Your task to perform on an android device: turn on showing notifications on the lock screen Image 0: 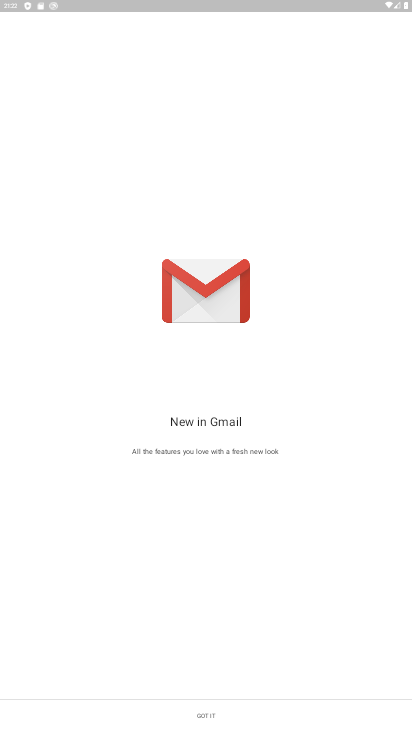
Step 0: press home button
Your task to perform on an android device: turn on showing notifications on the lock screen Image 1: 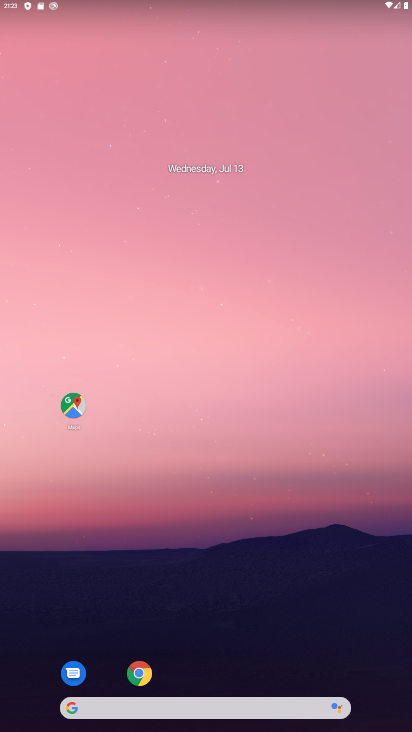
Step 1: drag from (211, 682) to (214, 204)
Your task to perform on an android device: turn on showing notifications on the lock screen Image 2: 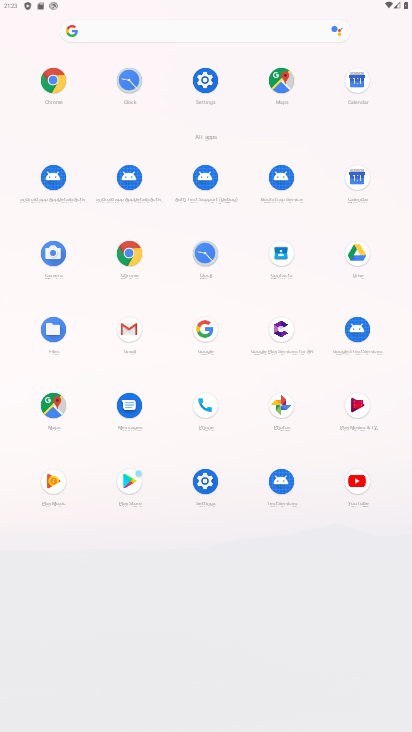
Step 2: click (209, 77)
Your task to perform on an android device: turn on showing notifications on the lock screen Image 3: 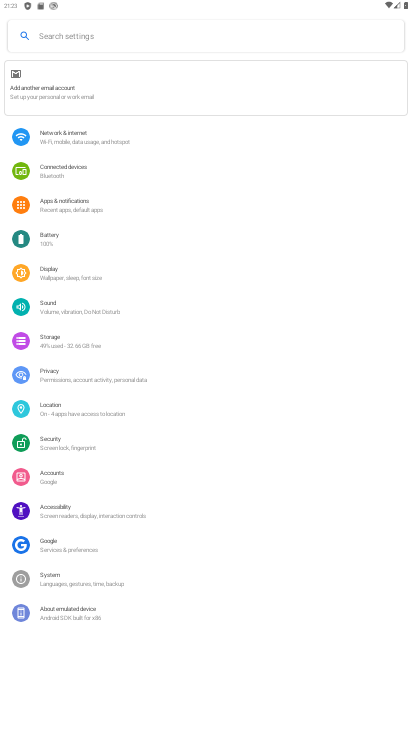
Step 3: click (99, 202)
Your task to perform on an android device: turn on showing notifications on the lock screen Image 4: 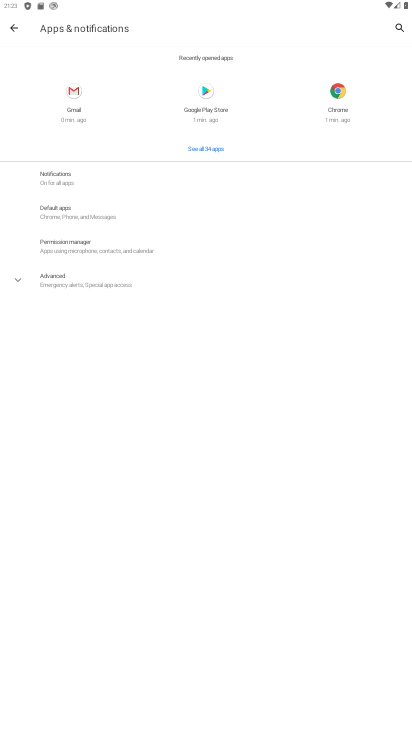
Step 4: click (67, 180)
Your task to perform on an android device: turn on showing notifications on the lock screen Image 5: 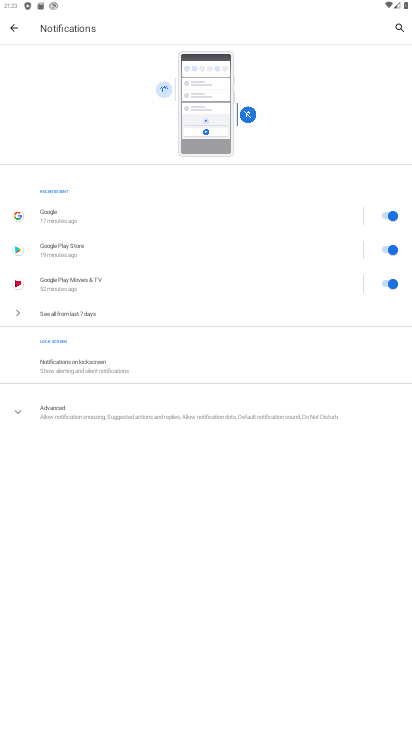
Step 5: click (87, 364)
Your task to perform on an android device: turn on showing notifications on the lock screen Image 6: 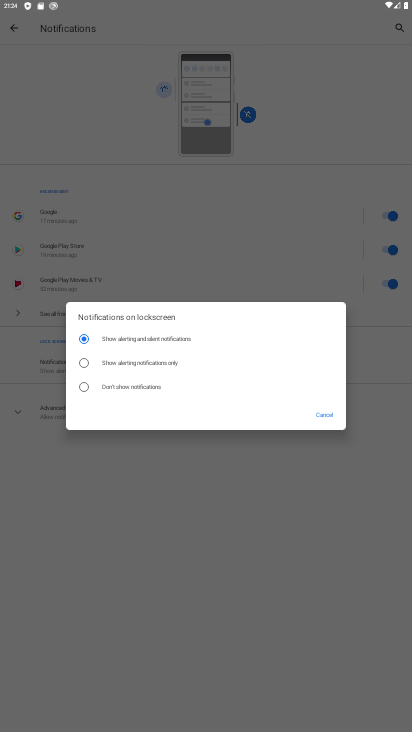
Step 6: press home button
Your task to perform on an android device: turn on showing notifications on the lock screen Image 7: 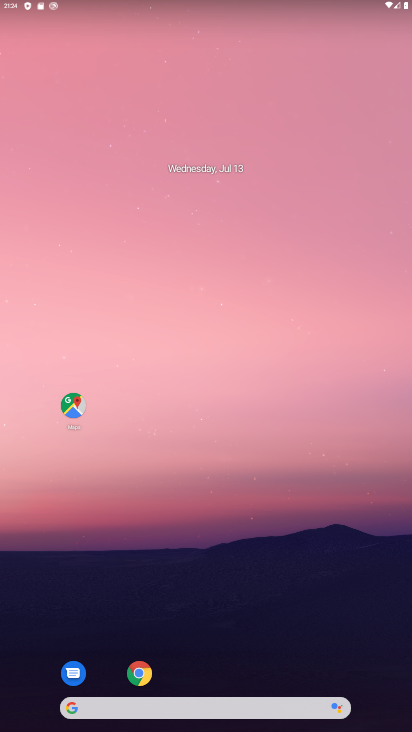
Step 7: drag from (211, 665) to (209, 18)
Your task to perform on an android device: turn on showing notifications on the lock screen Image 8: 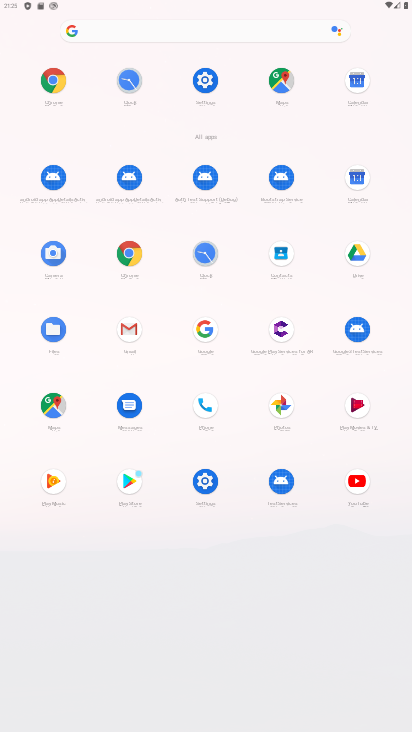
Step 8: click (208, 89)
Your task to perform on an android device: turn on showing notifications on the lock screen Image 9: 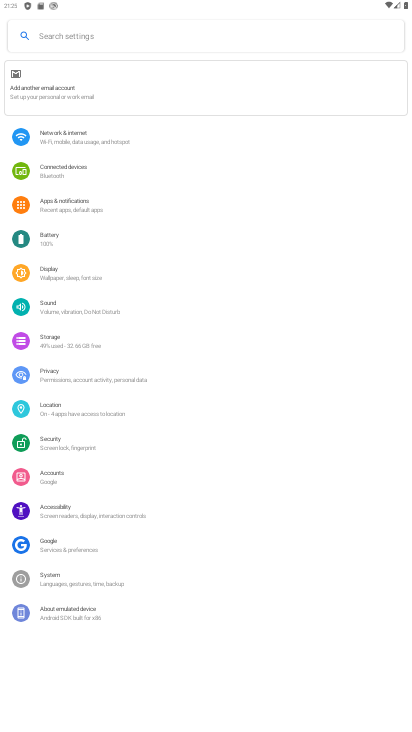
Step 9: click (103, 208)
Your task to perform on an android device: turn on showing notifications on the lock screen Image 10: 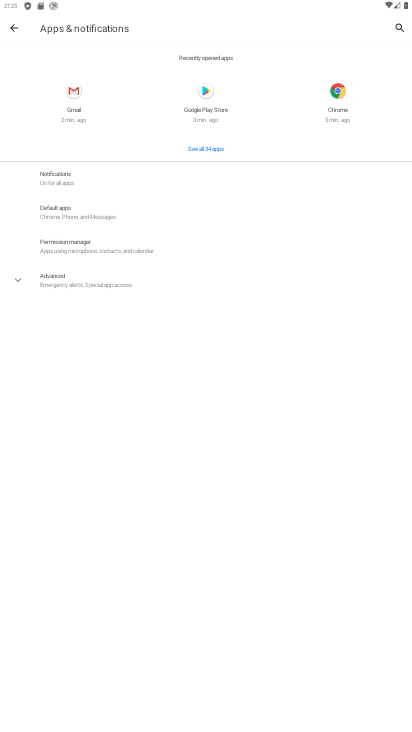
Step 10: click (81, 181)
Your task to perform on an android device: turn on showing notifications on the lock screen Image 11: 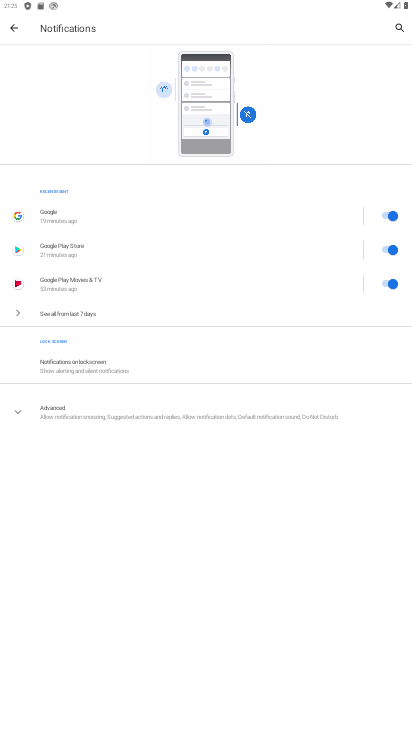
Step 11: click (143, 372)
Your task to perform on an android device: turn on showing notifications on the lock screen Image 12: 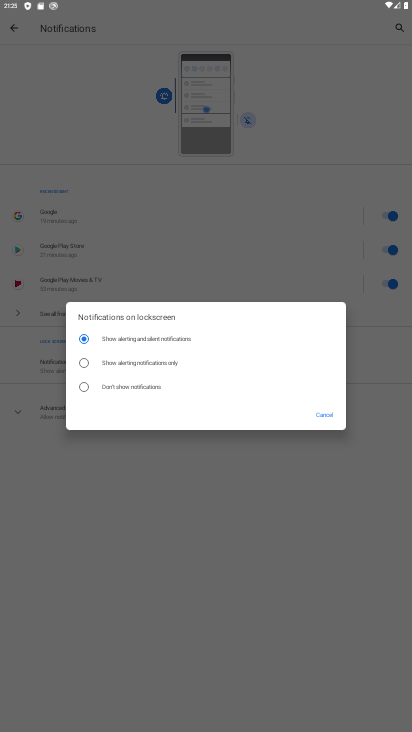
Step 12: task complete